Your task to perform on an android device: turn off javascript in the chrome app Image 0: 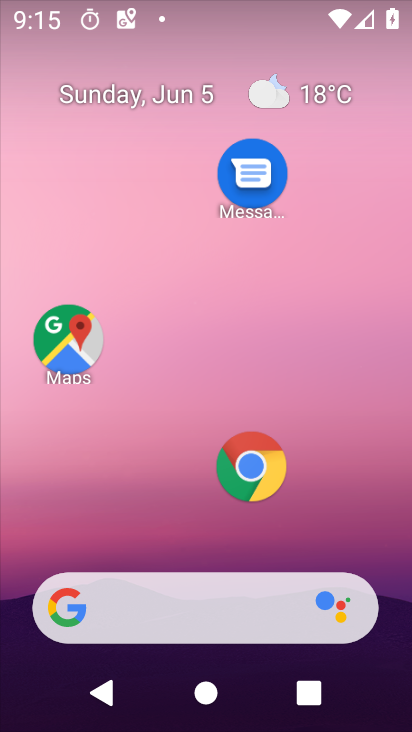
Step 0: drag from (179, 521) to (181, 5)
Your task to perform on an android device: turn off javascript in the chrome app Image 1: 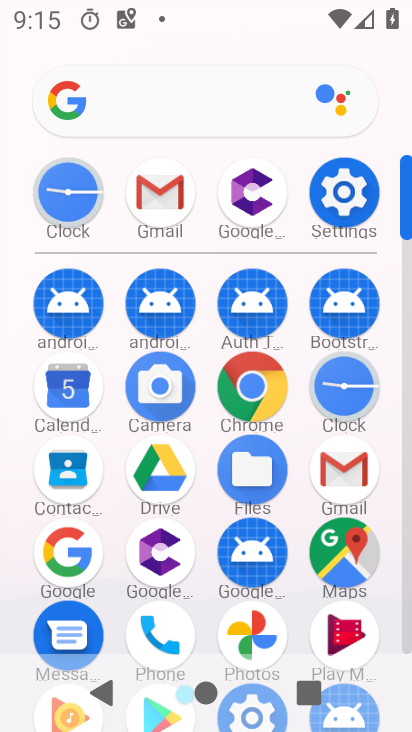
Step 1: click (242, 382)
Your task to perform on an android device: turn off javascript in the chrome app Image 2: 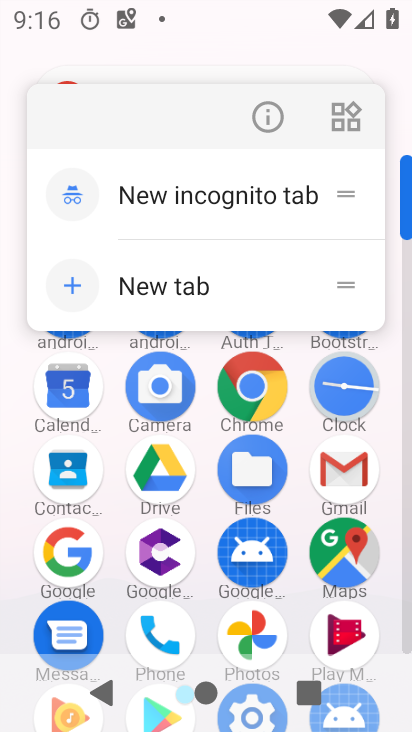
Step 2: click (270, 115)
Your task to perform on an android device: turn off javascript in the chrome app Image 3: 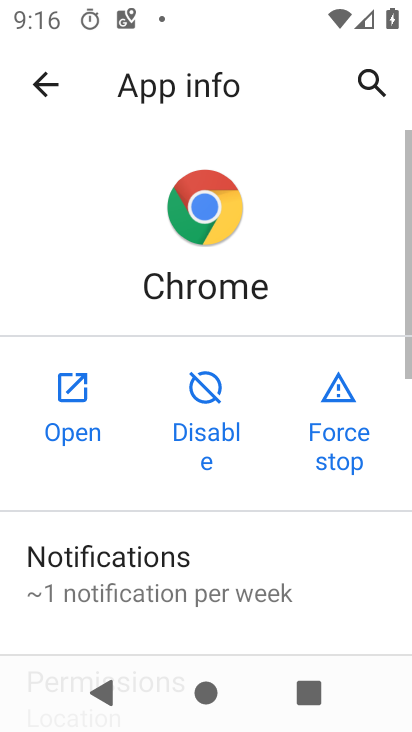
Step 3: click (81, 393)
Your task to perform on an android device: turn off javascript in the chrome app Image 4: 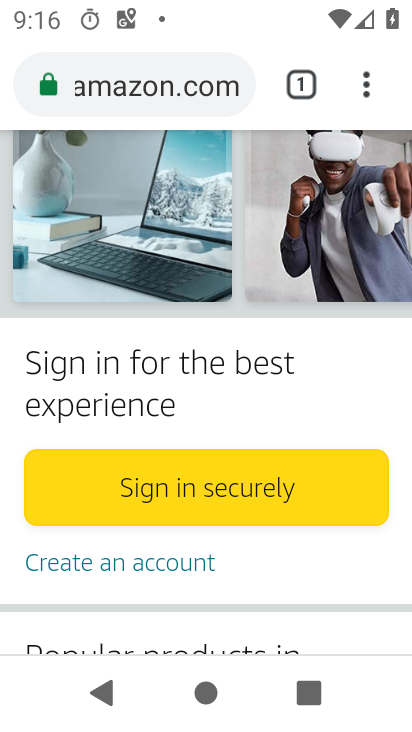
Step 4: click (80, 395)
Your task to perform on an android device: turn off javascript in the chrome app Image 5: 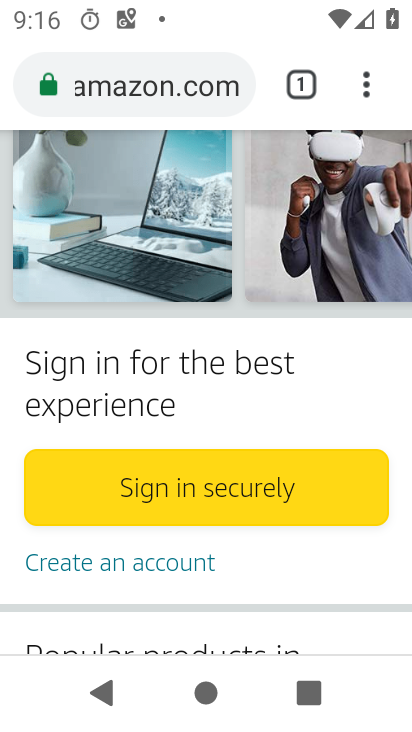
Step 5: drag from (80, 392) to (221, 43)
Your task to perform on an android device: turn off javascript in the chrome app Image 6: 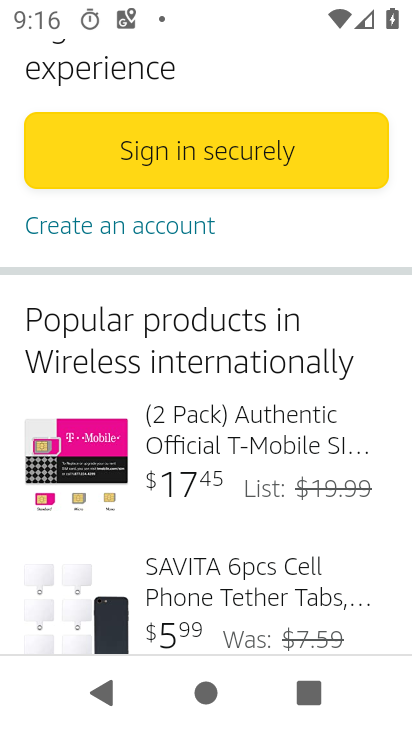
Step 6: drag from (363, 85) to (389, 658)
Your task to perform on an android device: turn off javascript in the chrome app Image 7: 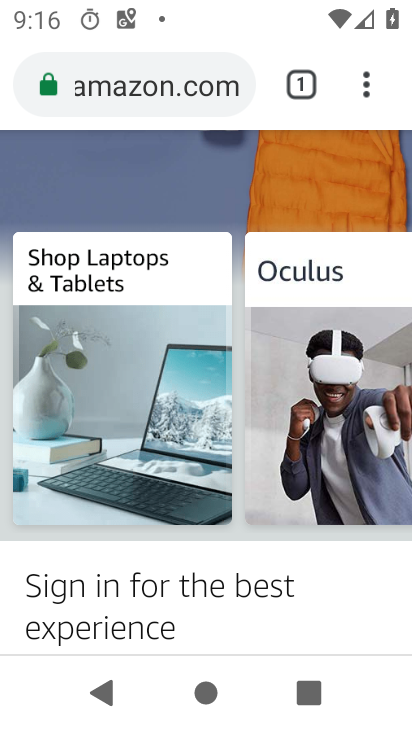
Step 7: click (367, 66)
Your task to perform on an android device: turn off javascript in the chrome app Image 8: 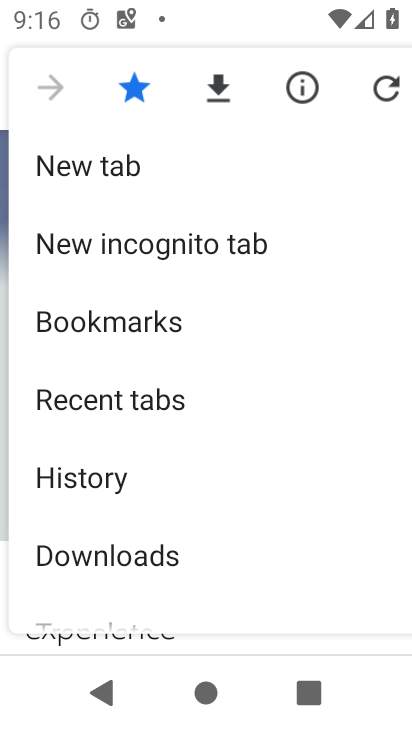
Step 8: drag from (152, 535) to (280, 1)
Your task to perform on an android device: turn off javascript in the chrome app Image 9: 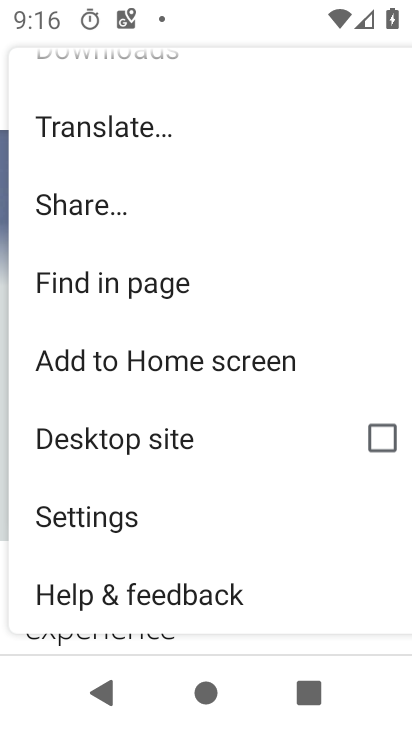
Step 9: click (139, 524)
Your task to perform on an android device: turn off javascript in the chrome app Image 10: 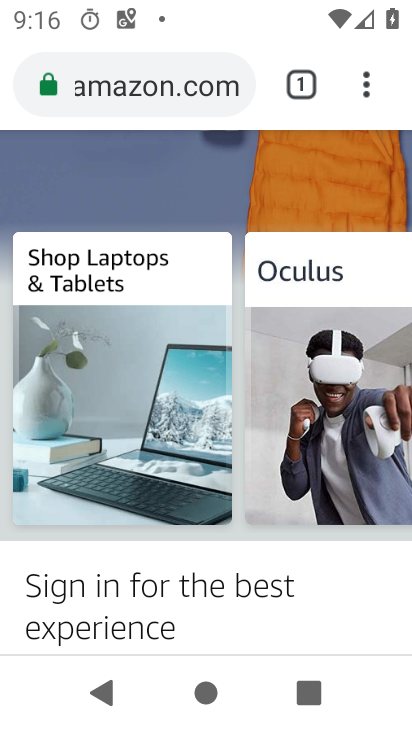
Step 10: drag from (198, 379) to (246, 29)
Your task to perform on an android device: turn off javascript in the chrome app Image 11: 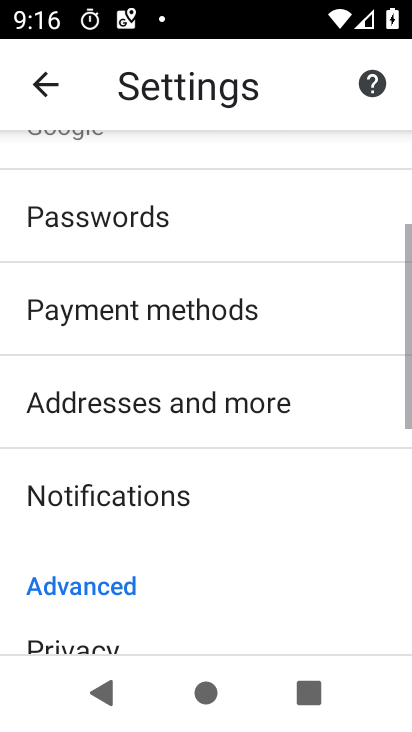
Step 11: drag from (216, 547) to (275, 107)
Your task to perform on an android device: turn off javascript in the chrome app Image 12: 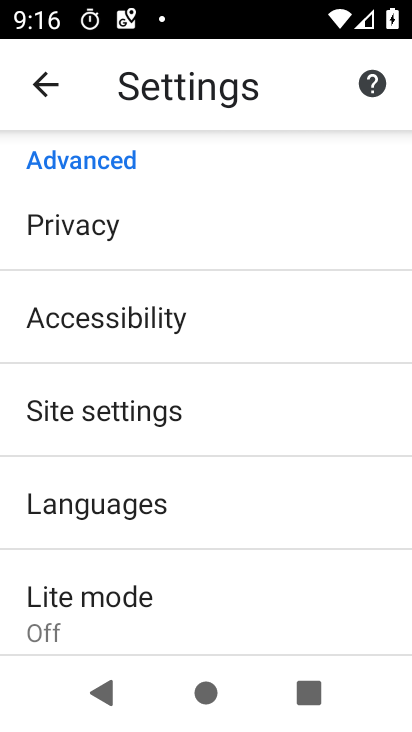
Step 12: click (147, 426)
Your task to perform on an android device: turn off javascript in the chrome app Image 13: 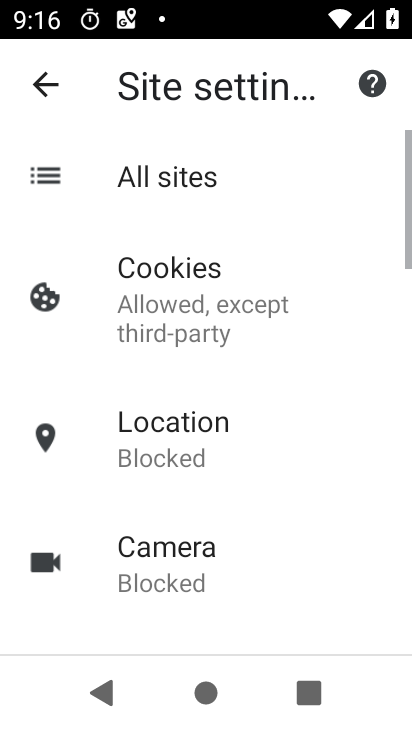
Step 13: drag from (217, 523) to (294, 155)
Your task to perform on an android device: turn off javascript in the chrome app Image 14: 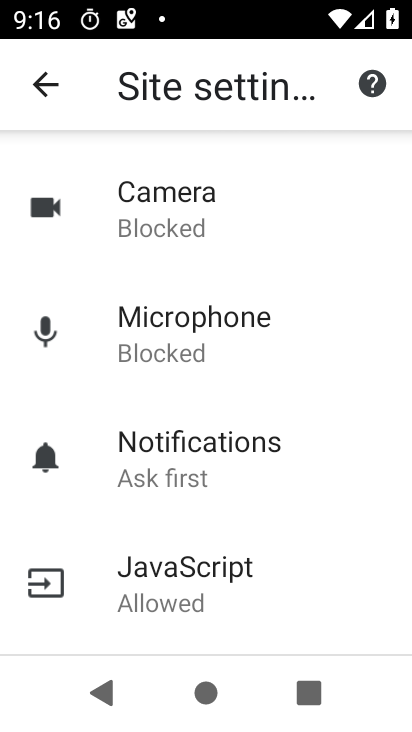
Step 14: click (195, 577)
Your task to perform on an android device: turn off javascript in the chrome app Image 15: 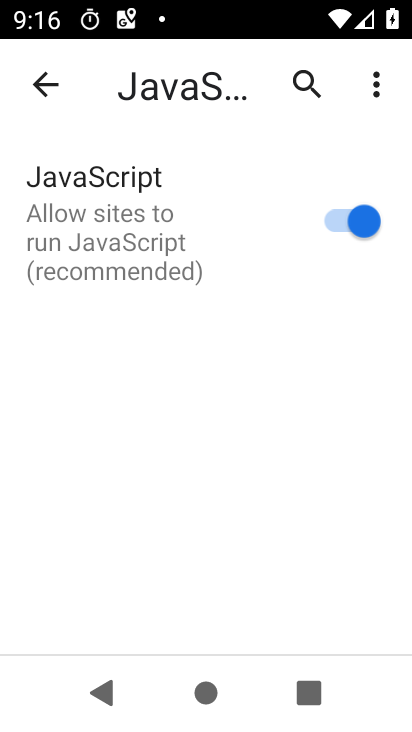
Step 15: drag from (195, 573) to (274, 50)
Your task to perform on an android device: turn off javascript in the chrome app Image 16: 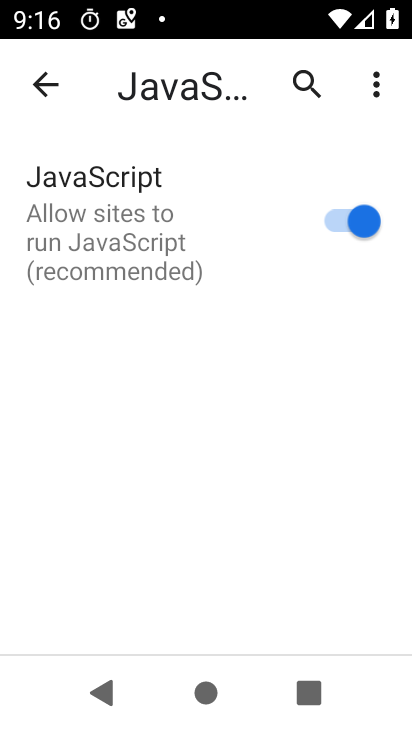
Step 16: click (351, 217)
Your task to perform on an android device: turn off javascript in the chrome app Image 17: 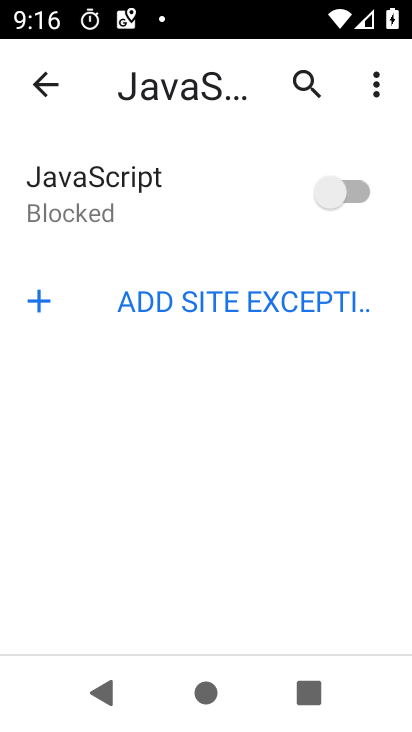
Step 17: task complete